Your task to perform on an android device: Open the phone app and click the voicemail tab. Image 0: 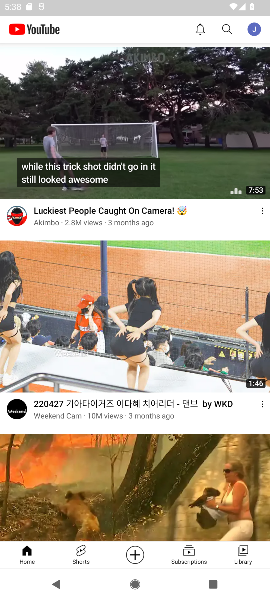
Step 0: press home button
Your task to perform on an android device: Open the phone app and click the voicemail tab. Image 1: 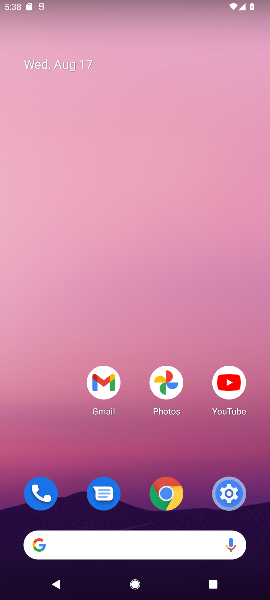
Step 1: drag from (146, 516) to (53, 5)
Your task to perform on an android device: Open the phone app and click the voicemail tab. Image 2: 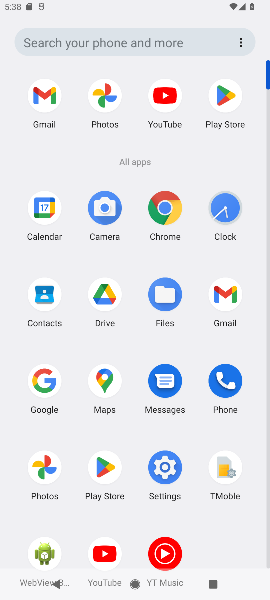
Step 2: click (224, 388)
Your task to perform on an android device: Open the phone app and click the voicemail tab. Image 3: 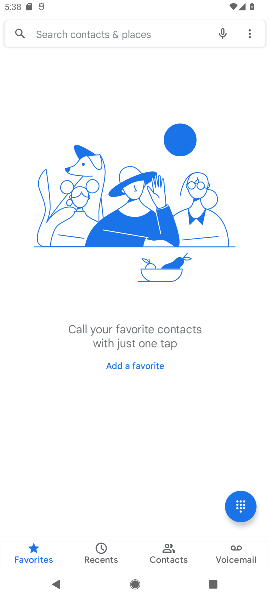
Step 3: click (233, 554)
Your task to perform on an android device: Open the phone app and click the voicemail tab. Image 4: 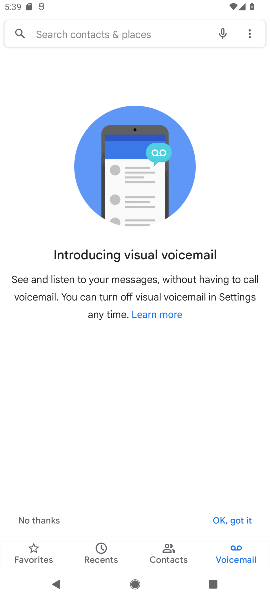
Step 4: task complete